Your task to perform on an android device: find which apps use the phone's location Image 0: 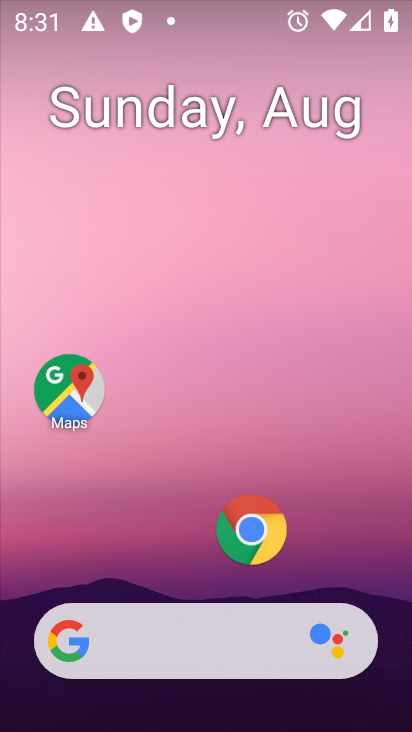
Step 0: drag from (168, 512) to (235, 42)
Your task to perform on an android device: find which apps use the phone's location Image 1: 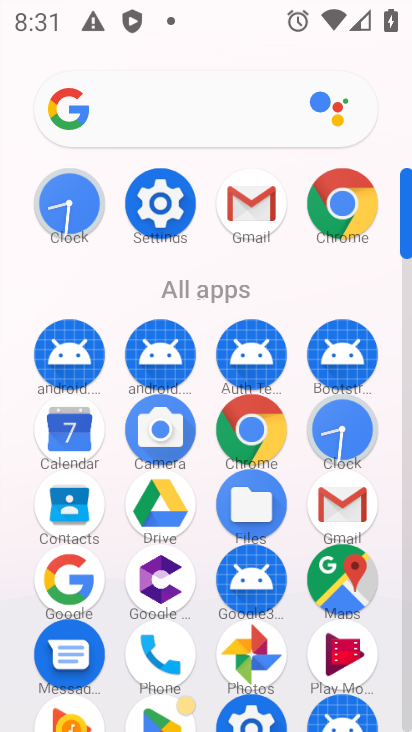
Step 1: click (155, 205)
Your task to perform on an android device: find which apps use the phone's location Image 2: 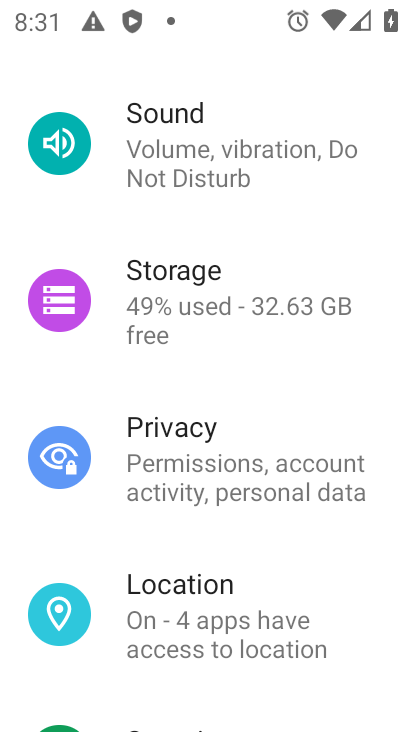
Step 2: click (183, 620)
Your task to perform on an android device: find which apps use the phone's location Image 3: 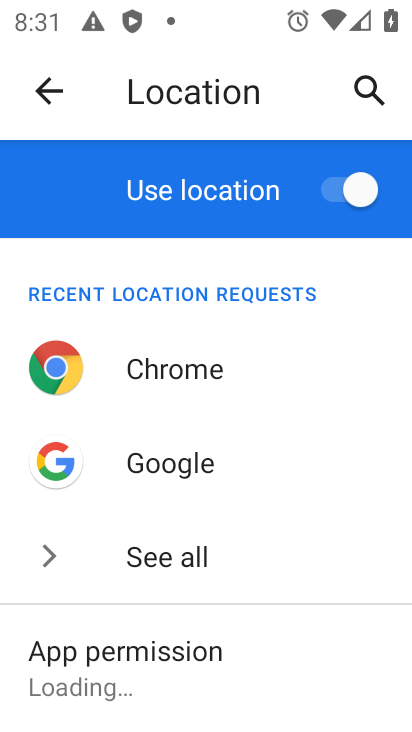
Step 3: drag from (226, 554) to (224, 329)
Your task to perform on an android device: find which apps use the phone's location Image 4: 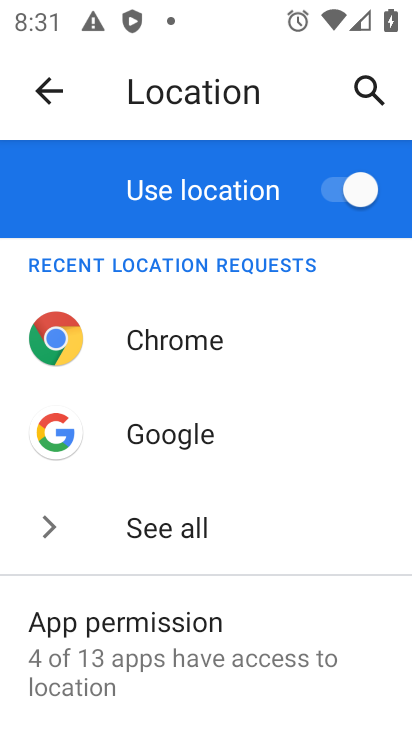
Step 4: click (155, 656)
Your task to perform on an android device: find which apps use the phone's location Image 5: 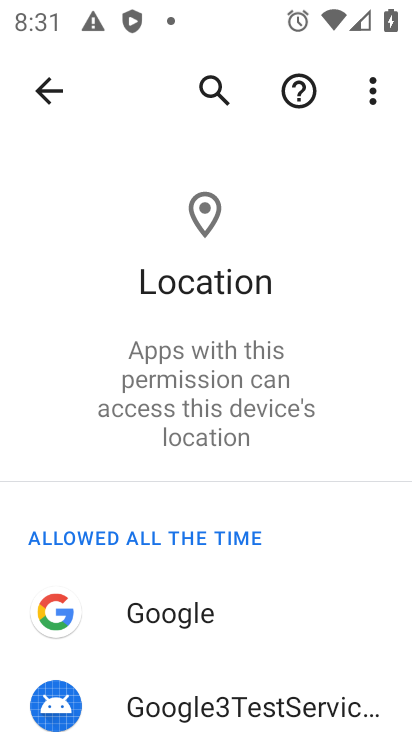
Step 5: task complete